Your task to perform on an android device: Search for seafood restaurants on Google Maps Image 0: 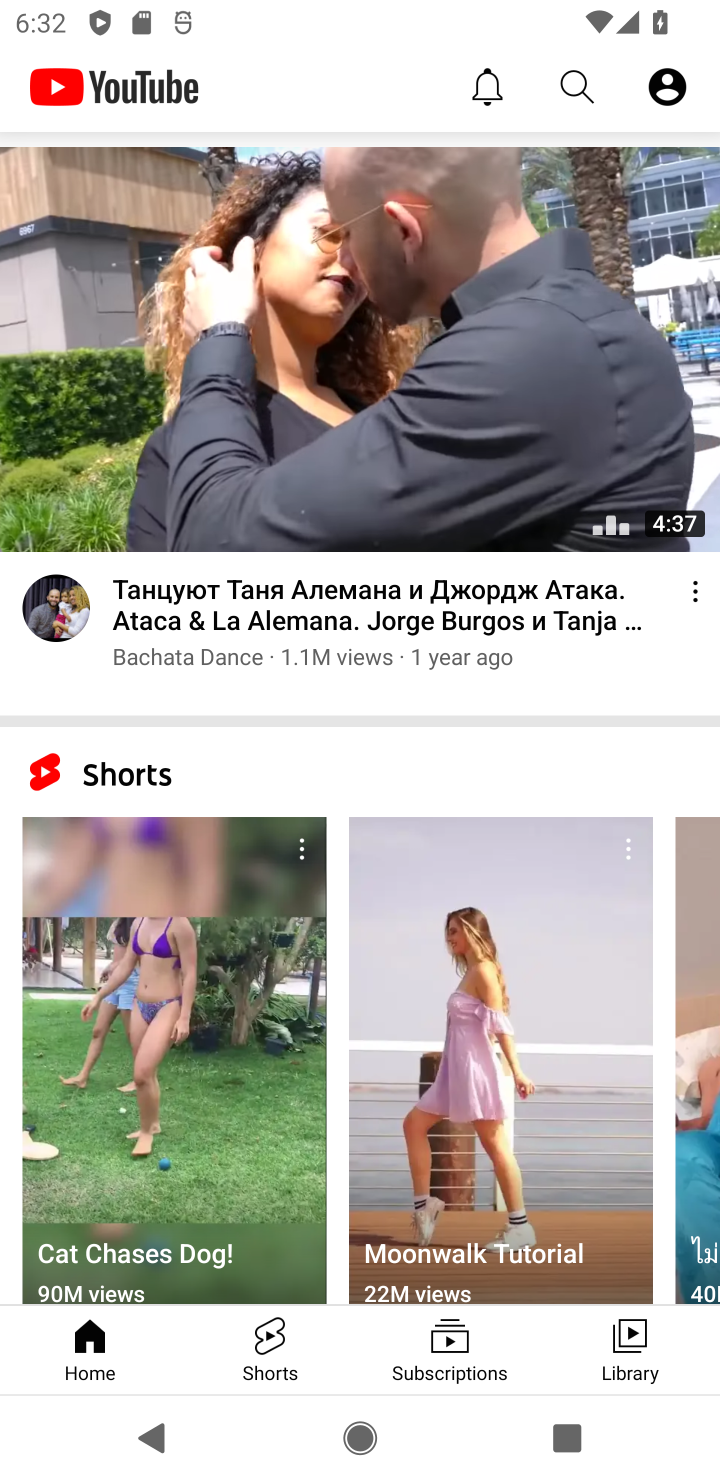
Step 0: press back button
Your task to perform on an android device: Search for seafood restaurants on Google Maps Image 1: 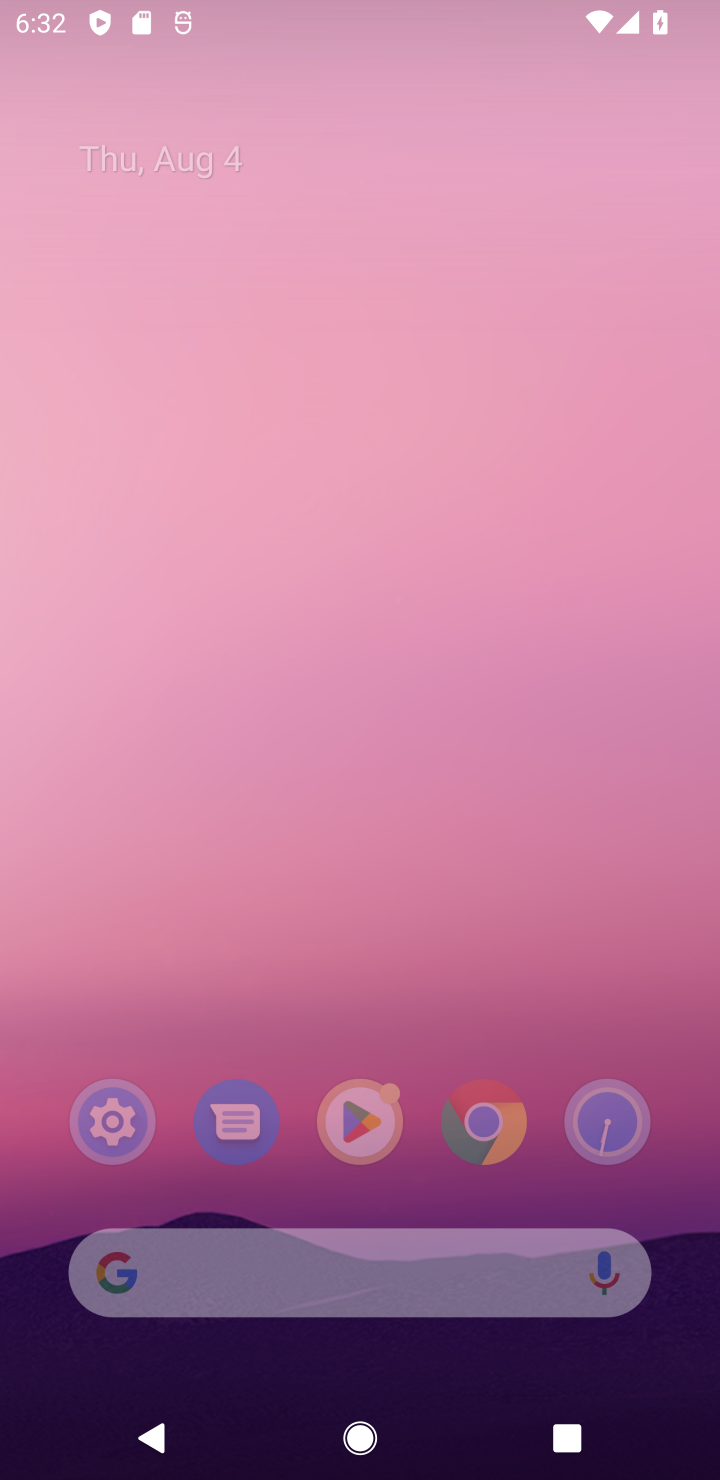
Step 1: press back button
Your task to perform on an android device: Search for seafood restaurants on Google Maps Image 2: 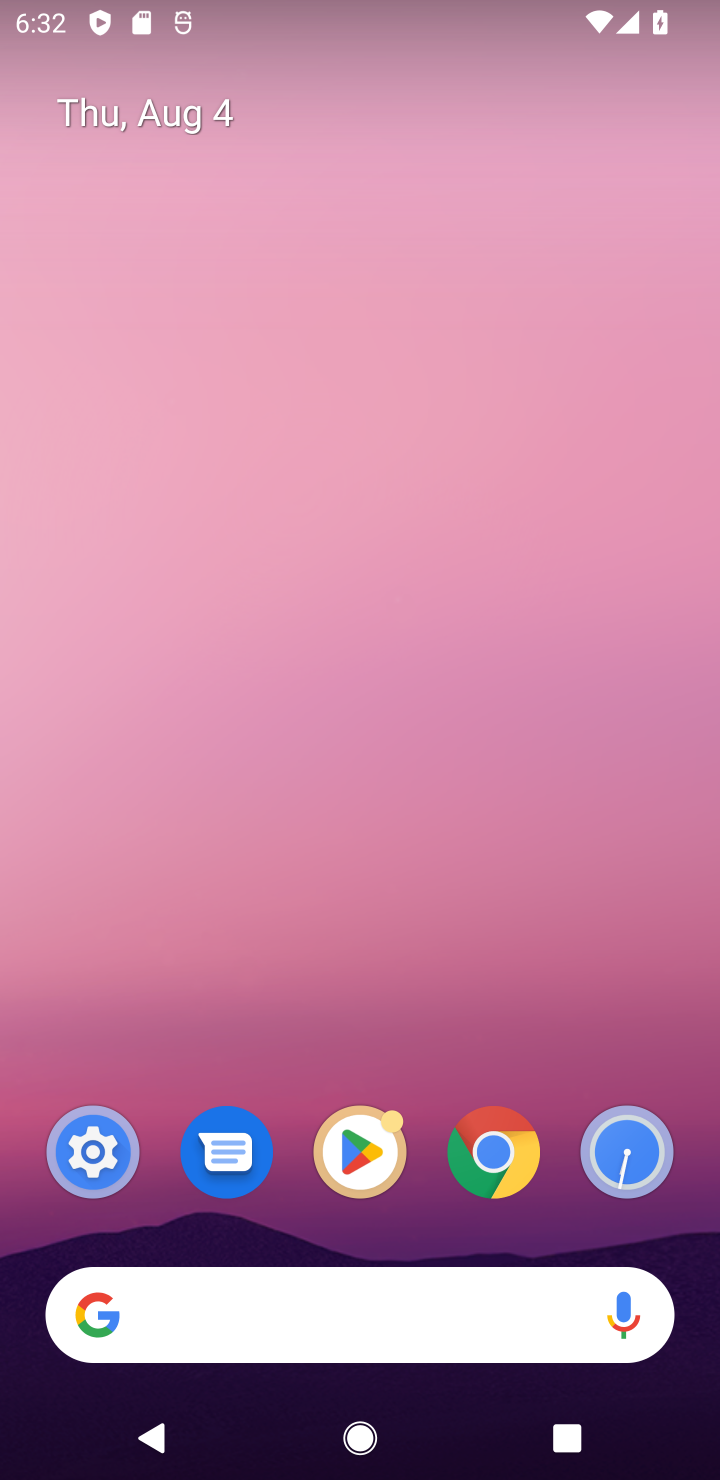
Step 2: drag from (359, 794) to (466, 20)
Your task to perform on an android device: Search for seafood restaurants on Google Maps Image 3: 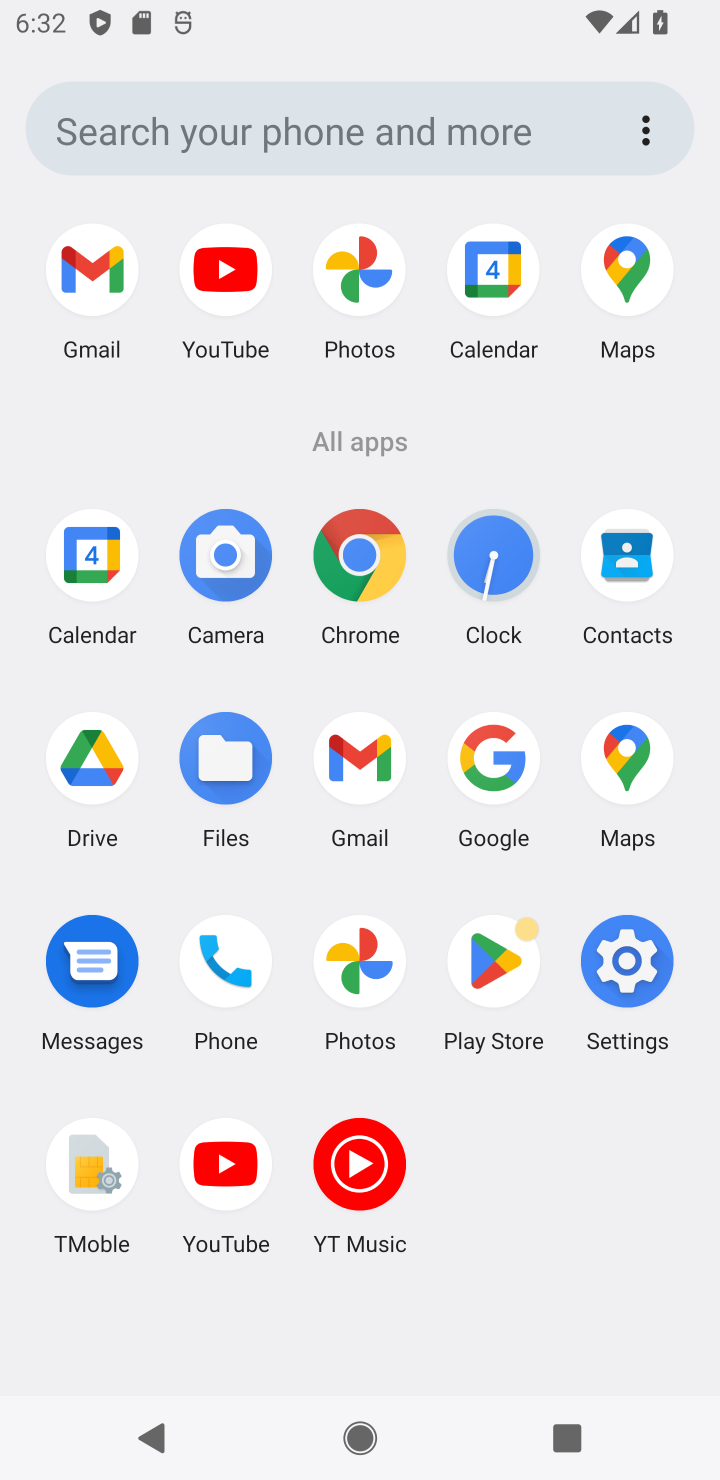
Step 3: click (636, 753)
Your task to perform on an android device: Search for seafood restaurants on Google Maps Image 4: 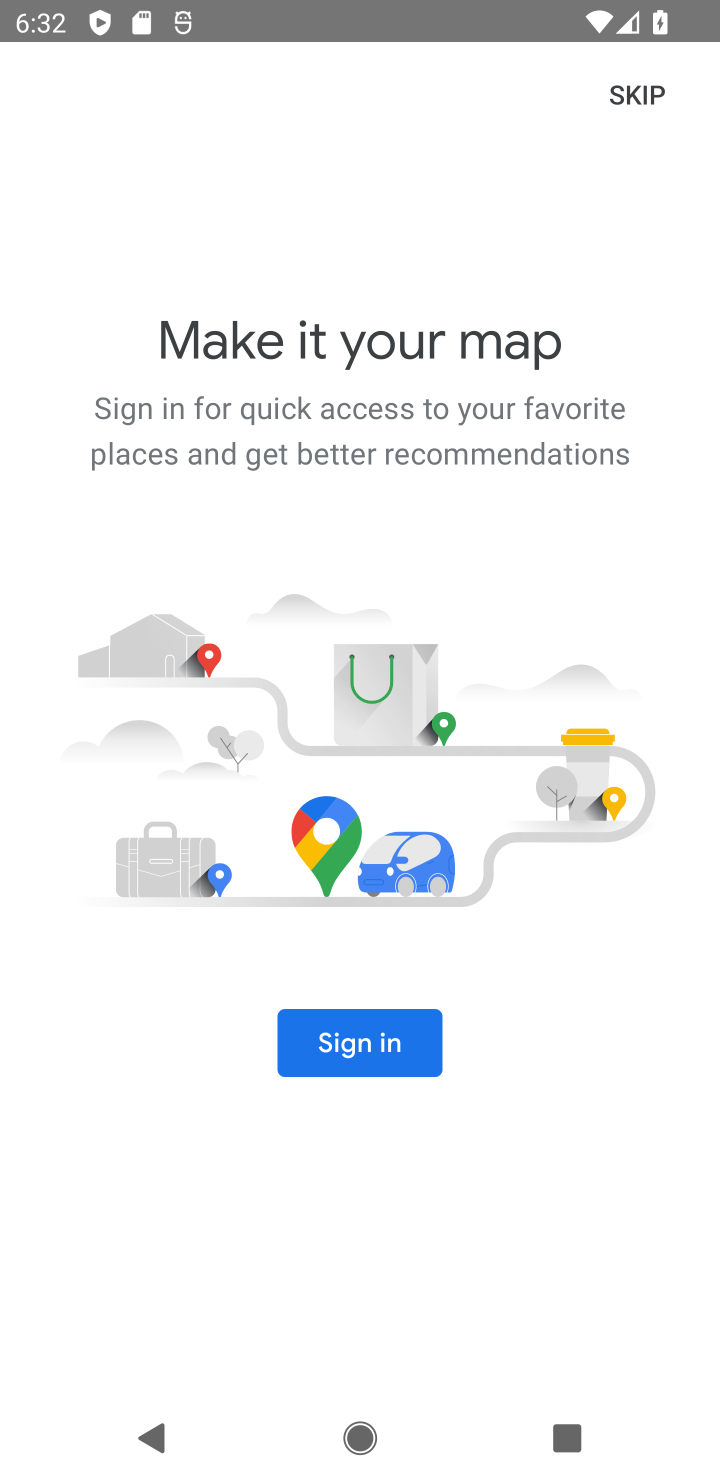
Step 4: click (631, 72)
Your task to perform on an android device: Search for seafood restaurants on Google Maps Image 5: 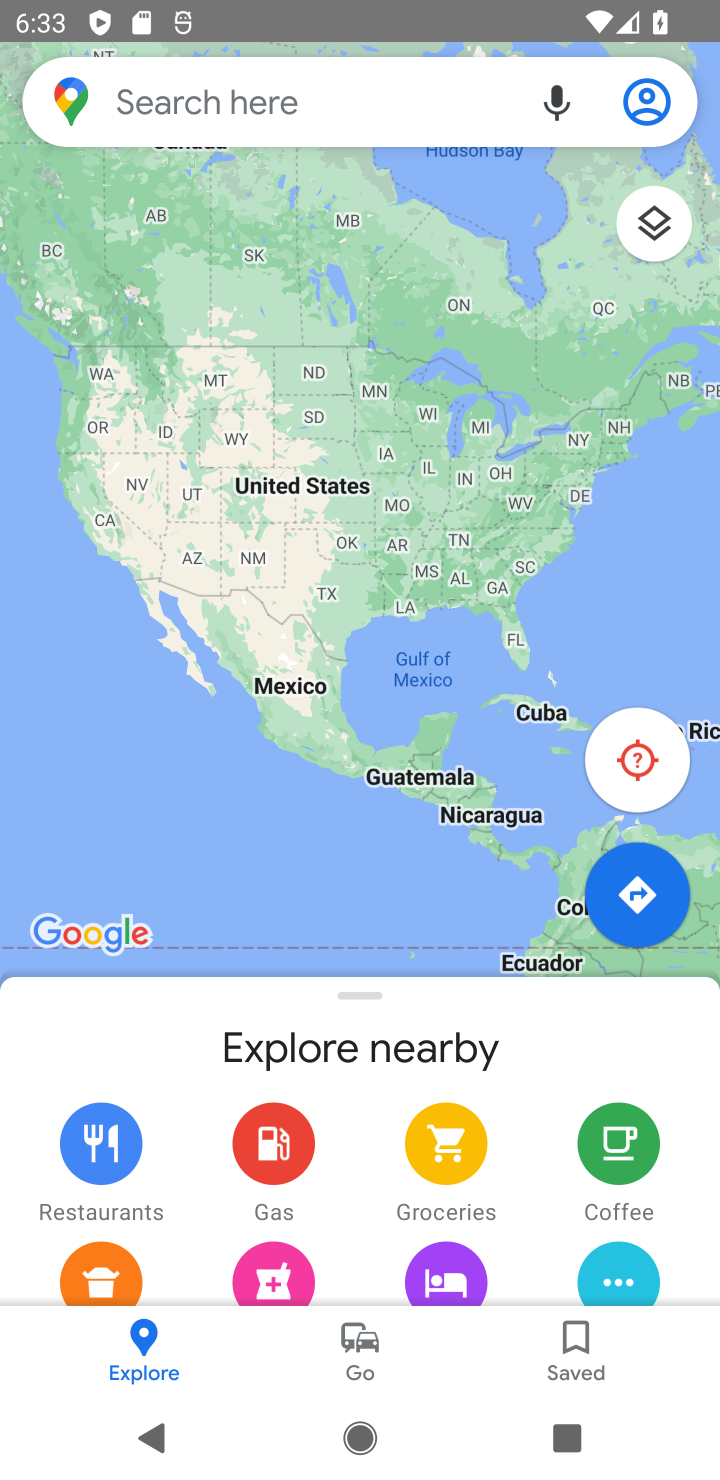
Step 5: click (275, 99)
Your task to perform on an android device: Search for seafood restaurants on Google Maps Image 6: 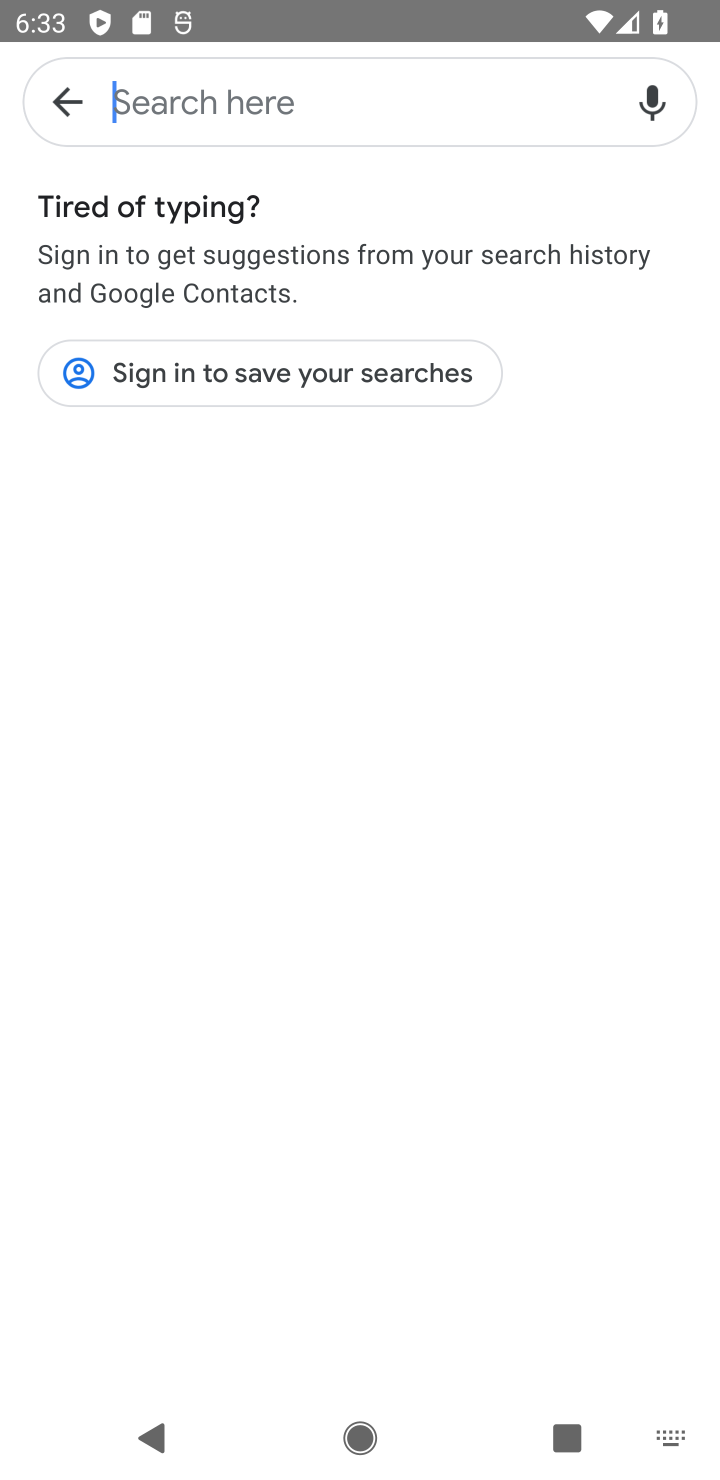
Step 6: click (300, 122)
Your task to perform on an android device: Search for seafood restaurants on Google Maps Image 7: 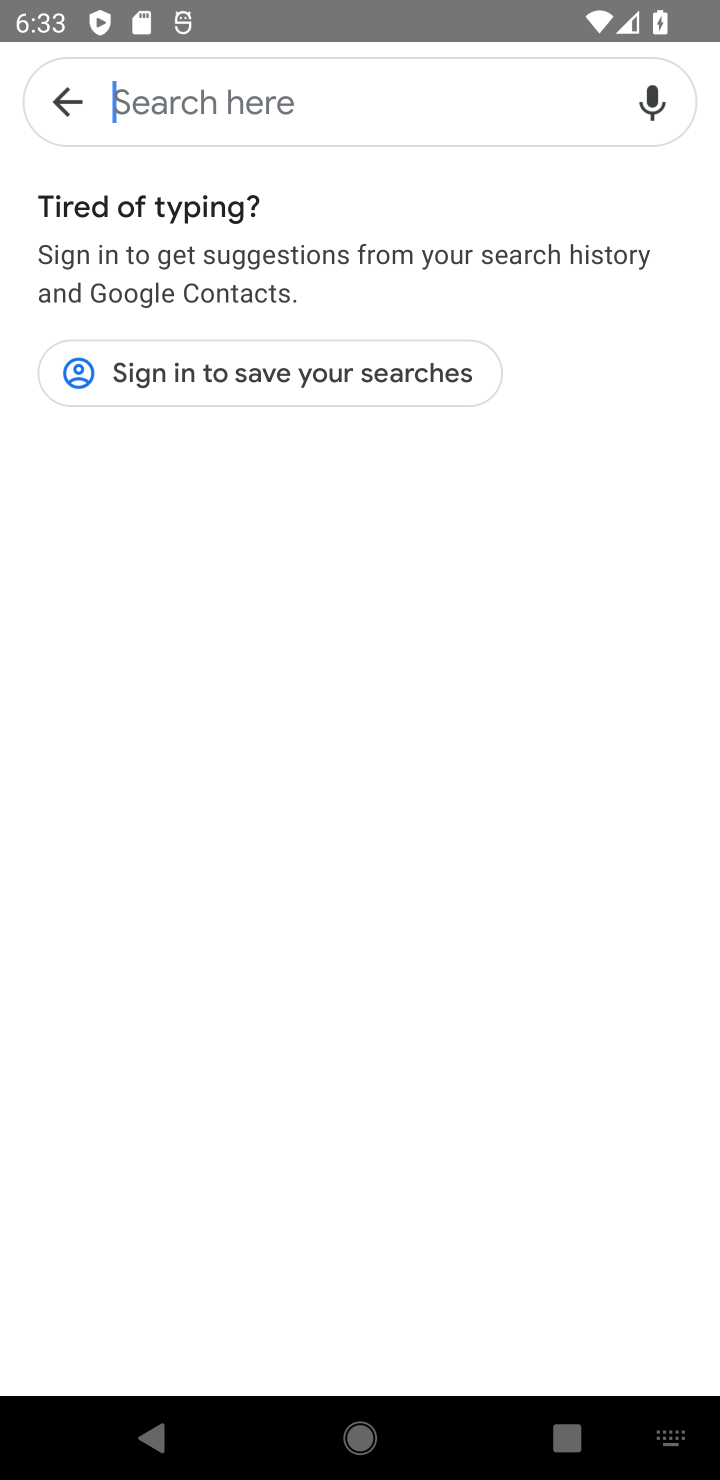
Step 7: type "seafood restaurants"
Your task to perform on an android device: Search for seafood restaurants on Google Maps Image 8: 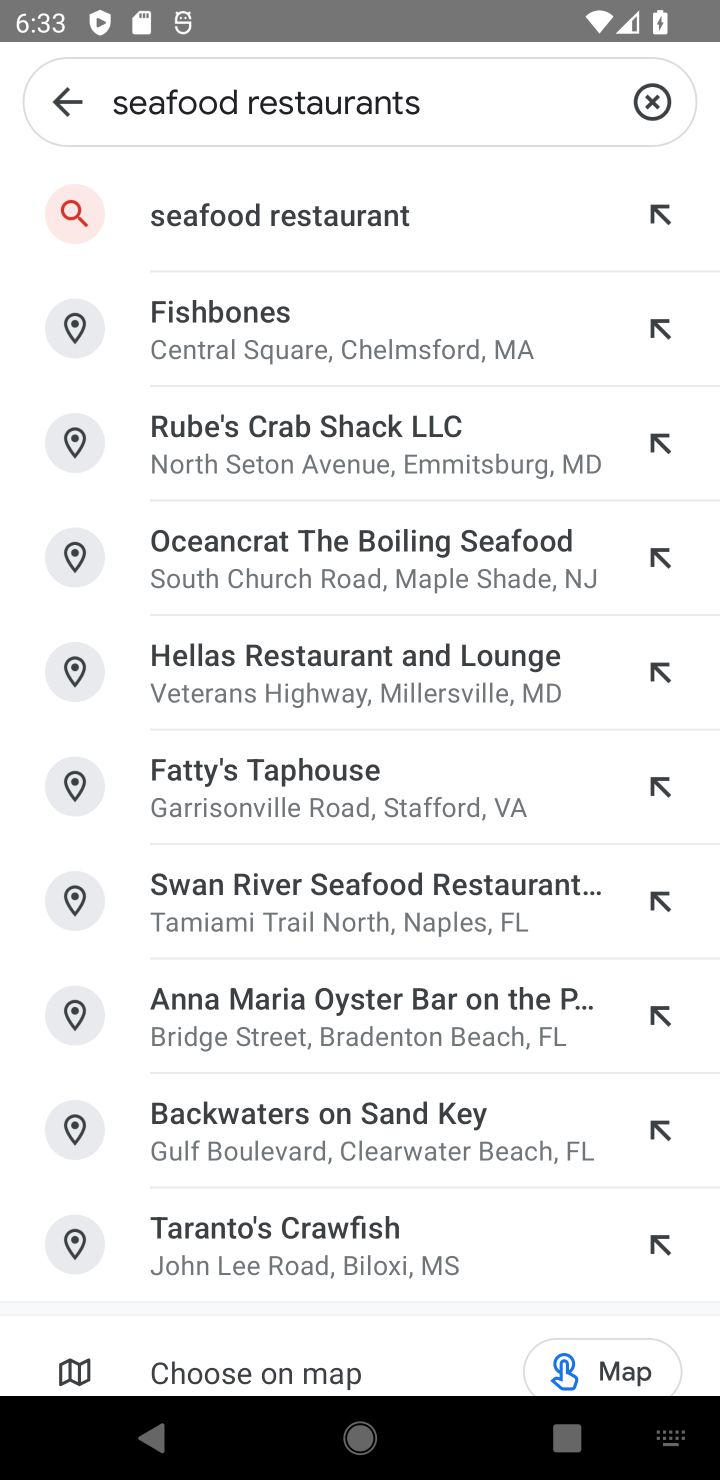
Step 8: click (399, 232)
Your task to perform on an android device: Search for seafood restaurants on Google Maps Image 9: 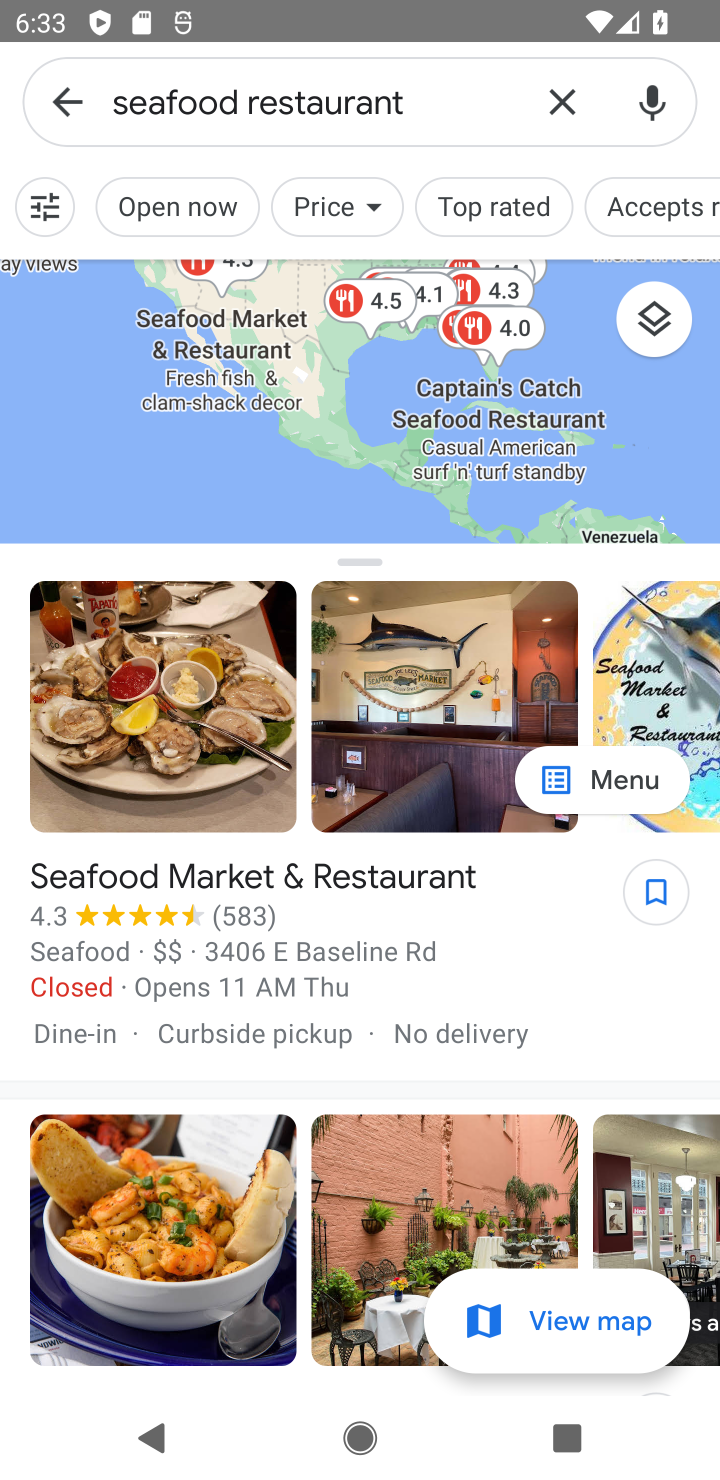
Step 9: task complete